Your task to perform on an android device: turn on location history Image 0: 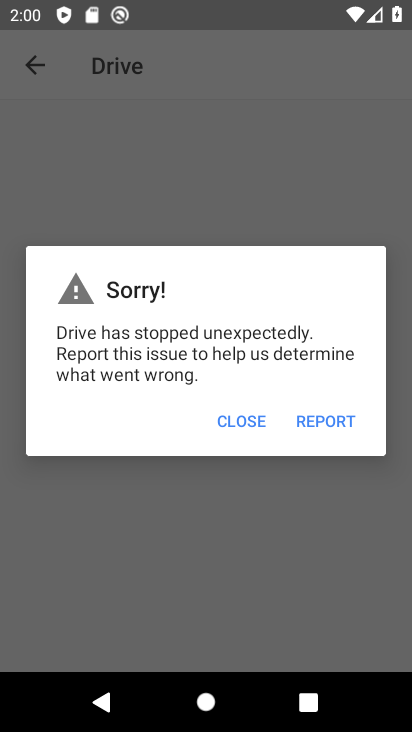
Step 0: press home button
Your task to perform on an android device: turn on location history Image 1: 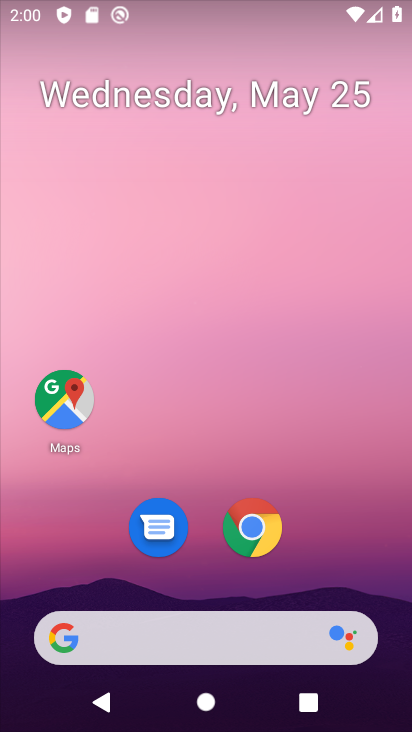
Step 1: drag from (175, 593) to (253, 106)
Your task to perform on an android device: turn on location history Image 2: 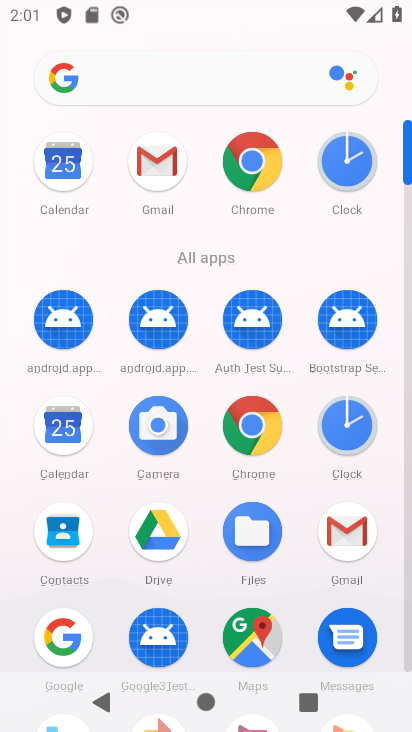
Step 2: drag from (177, 557) to (186, 102)
Your task to perform on an android device: turn on location history Image 3: 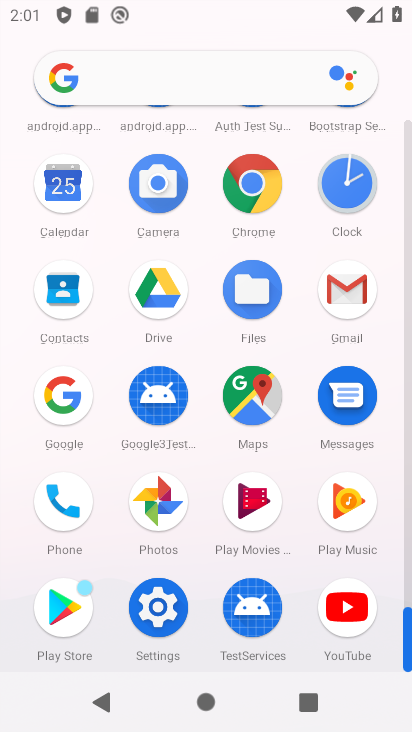
Step 3: click (170, 579)
Your task to perform on an android device: turn on location history Image 4: 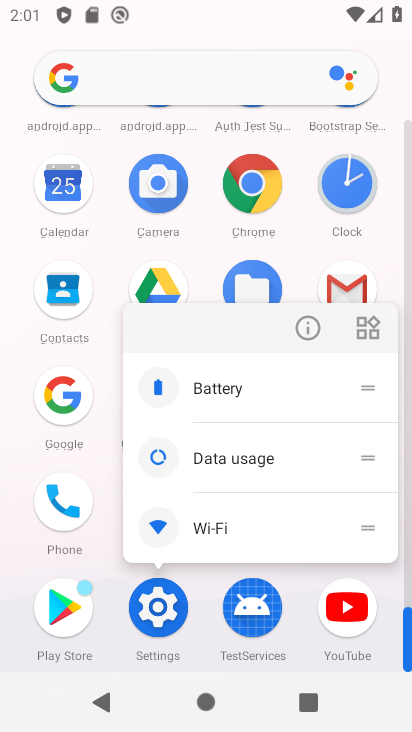
Step 4: click (173, 603)
Your task to perform on an android device: turn on location history Image 5: 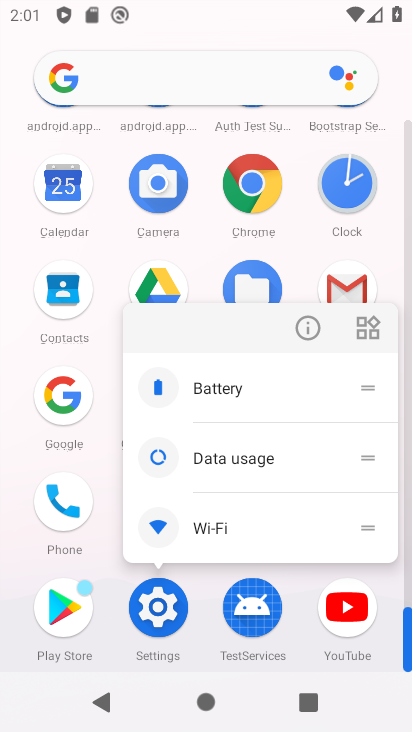
Step 5: click (169, 596)
Your task to perform on an android device: turn on location history Image 6: 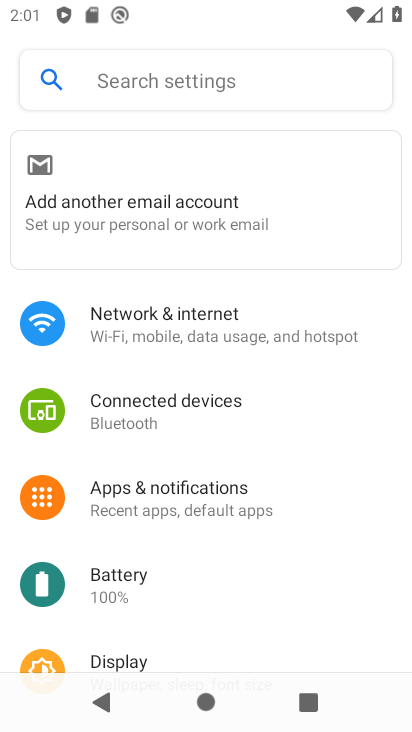
Step 6: drag from (135, 580) to (189, 64)
Your task to perform on an android device: turn on location history Image 7: 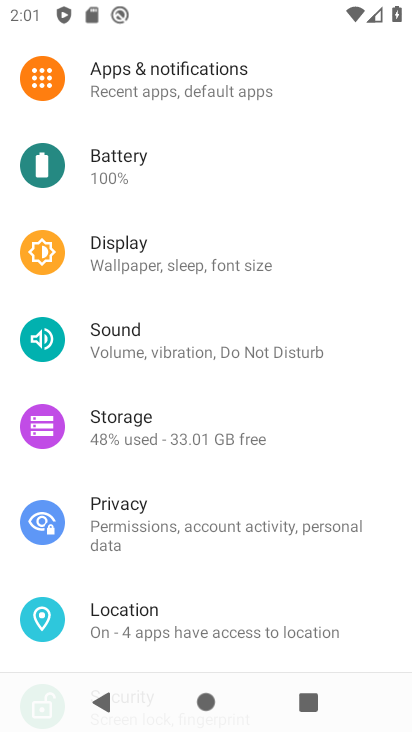
Step 7: click (131, 619)
Your task to perform on an android device: turn on location history Image 8: 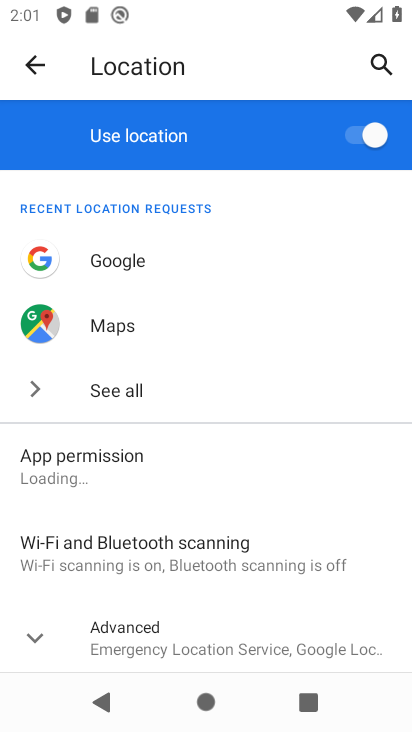
Step 8: click (169, 632)
Your task to perform on an android device: turn on location history Image 9: 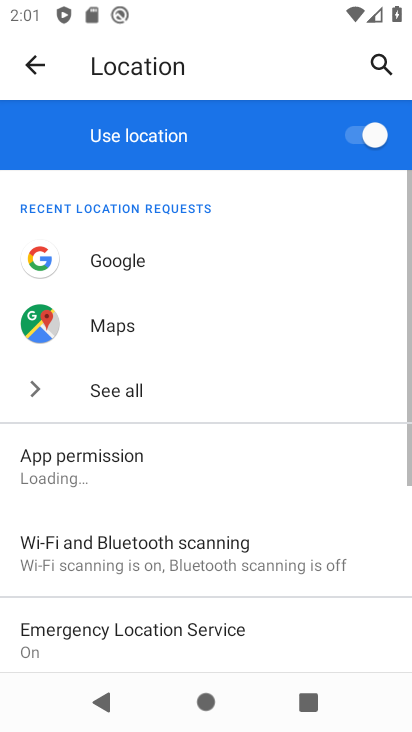
Step 9: drag from (167, 632) to (241, 155)
Your task to perform on an android device: turn on location history Image 10: 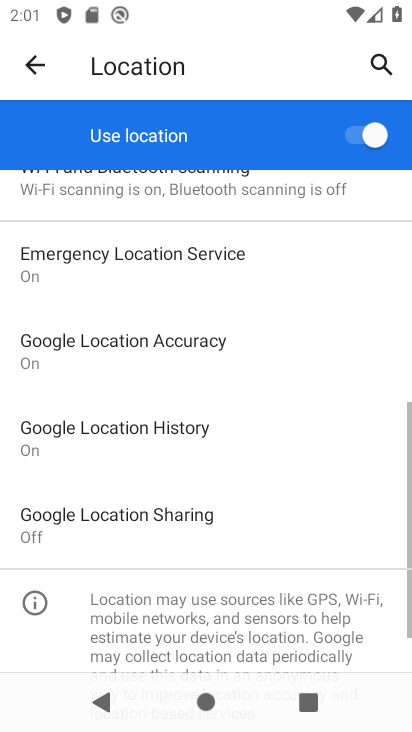
Step 10: click (118, 436)
Your task to perform on an android device: turn on location history Image 11: 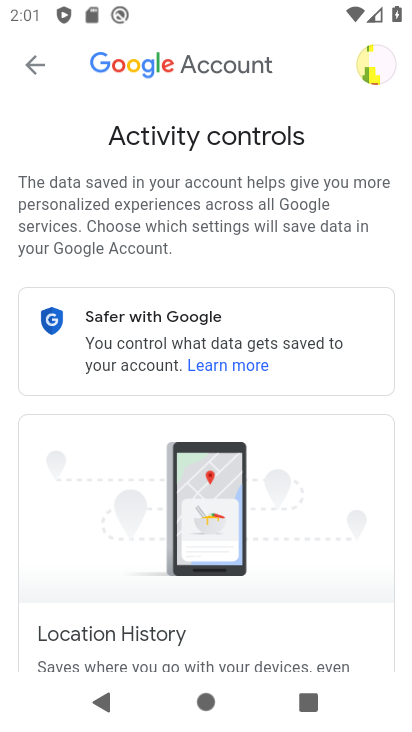
Step 11: task complete